Your task to perform on an android device: Go to eBay Image 0: 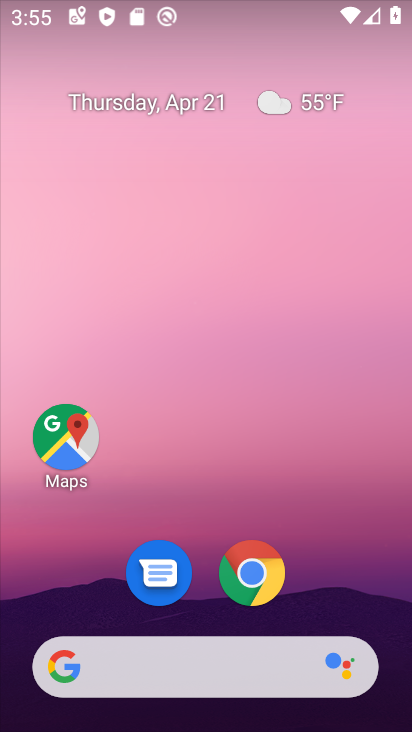
Step 0: click (250, 570)
Your task to perform on an android device: Go to eBay Image 1: 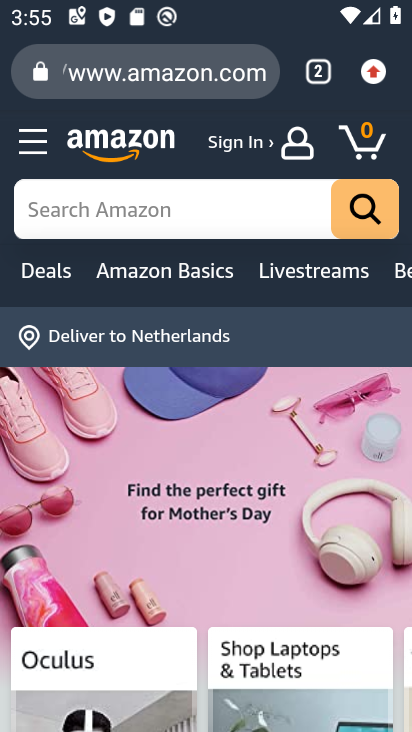
Step 1: click (131, 67)
Your task to perform on an android device: Go to eBay Image 2: 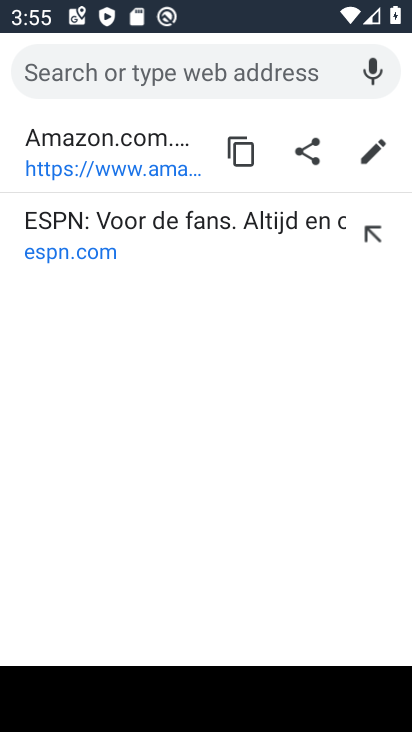
Step 2: type "ebay"
Your task to perform on an android device: Go to eBay Image 3: 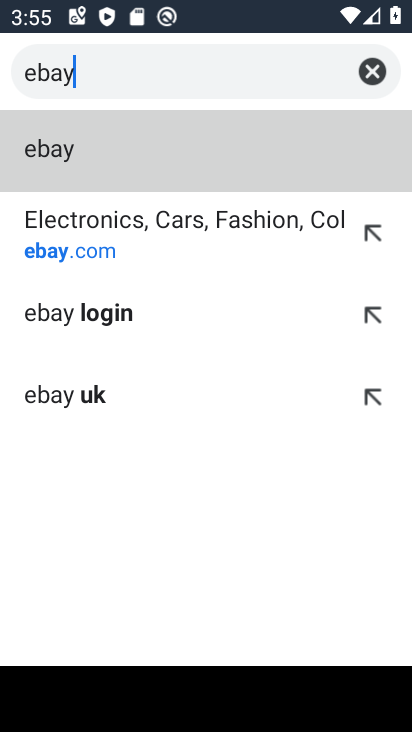
Step 3: click (126, 225)
Your task to perform on an android device: Go to eBay Image 4: 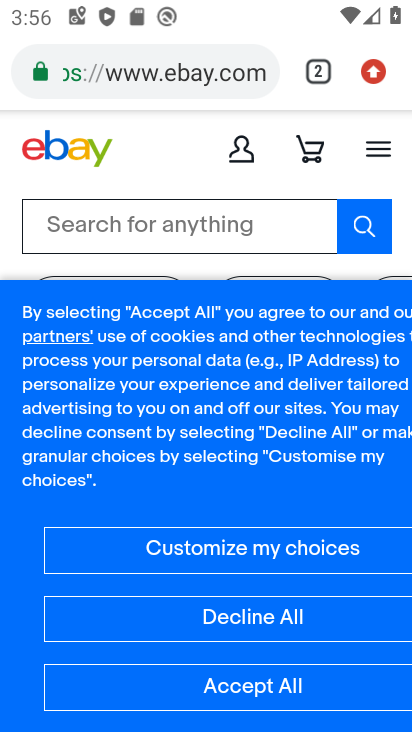
Step 4: task complete